Your task to perform on an android device: open sync settings in chrome Image 0: 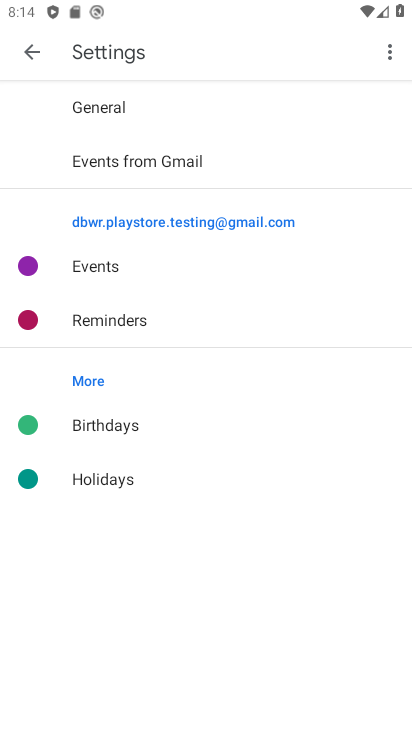
Step 0: press home button
Your task to perform on an android device: open sync settings in chrome Image 1: 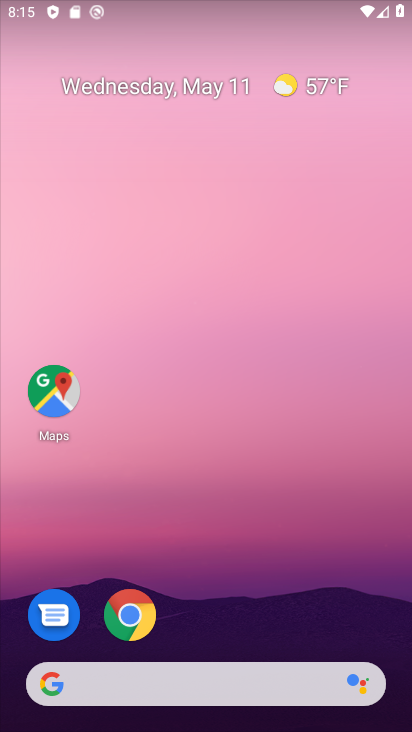
Step 1: click (122, 614)
Your task to perform on an android device: open sync settings in chrome Image 2: 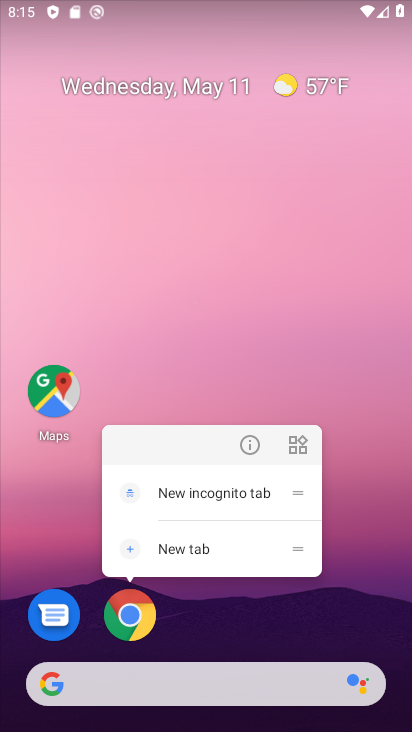
Step 2: click (138, 618)
Your task to perform on an android device: open sync settings in chrome Image 3: 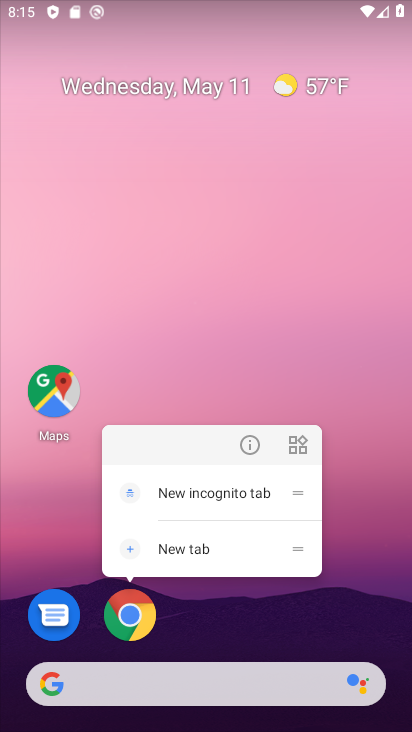
Step 3: click (138, 618)
Your task to perform on an android device: open sync settings in chrome Image 4: 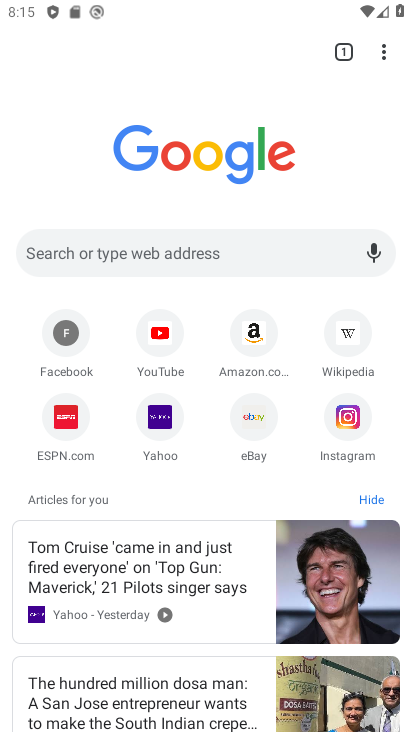
Step 4: drag from (383, 52) to (262, 442)
Your task to perform on an android device: open sync settings in chrome Image 5: 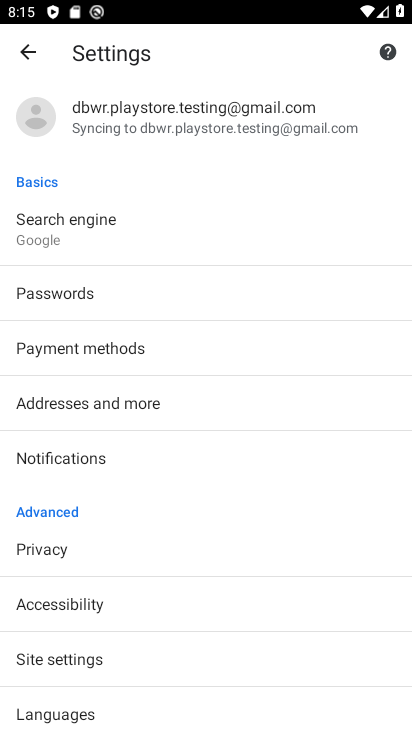
Step 5: drag from (152, 668) to (218, 328)
Your task to perform on an android device: open sync settings in chrome Image 6: 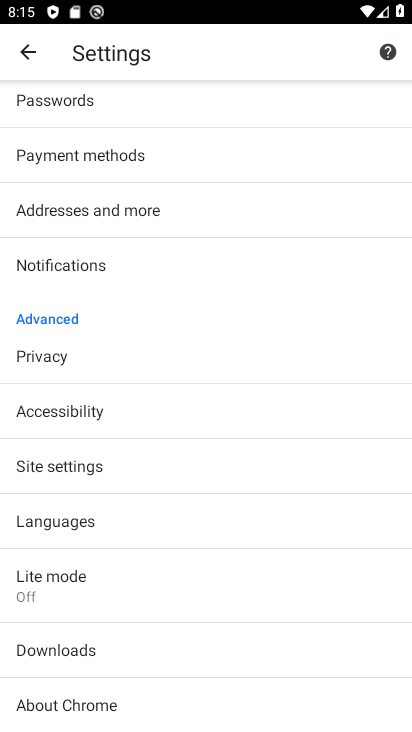
Step 6: click (79, 466)
Your task to perform on an android device: open sync settings in chrome Image 7: 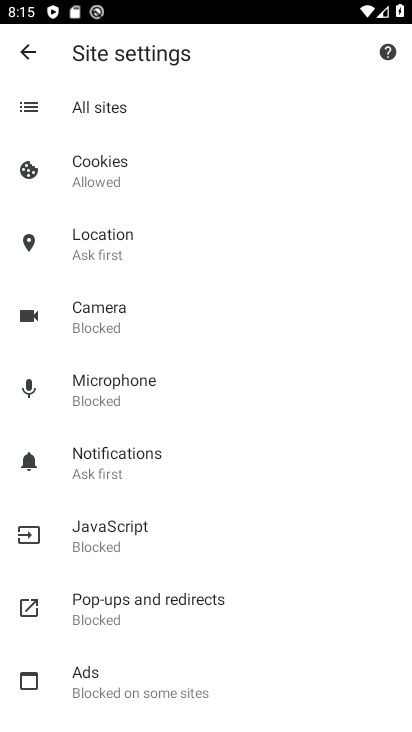
Step 7: drag from (178, 630) to (228, 138)
Your task to perform on an android device: open sync settings in chrome Image 8: 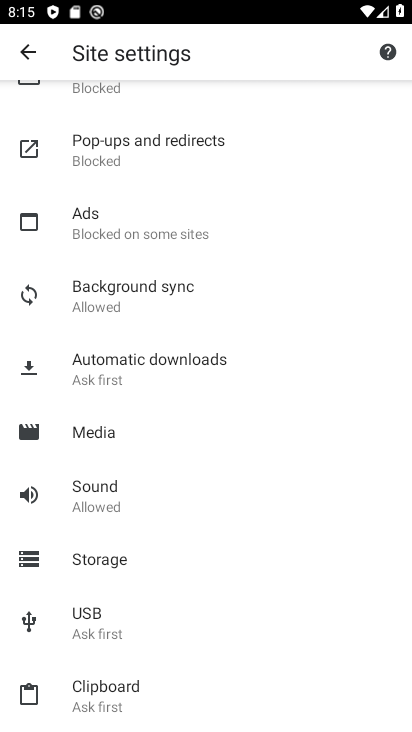
Step 8: click (159, 310)
Your task to perform on an android device: open sync settings in chrome Image 9: 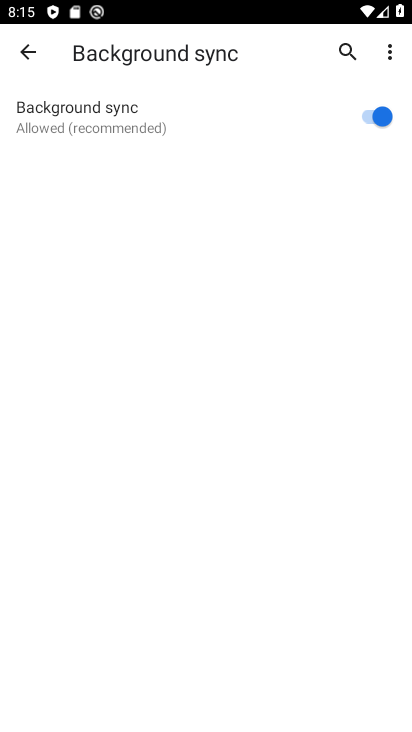
Step 9: task complete